Your task to perform on an android device: Go to Wikipedia Image 0: 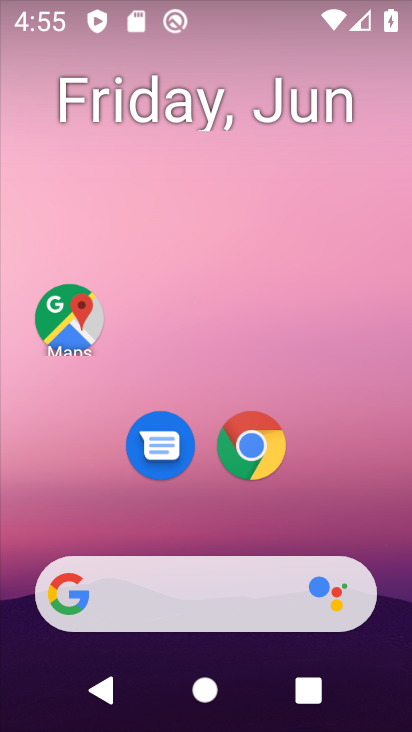
Step 0: drag from (401, 595) to (307, 44)
Your task to perform on an android device: Go to Wikipedia Image 1: 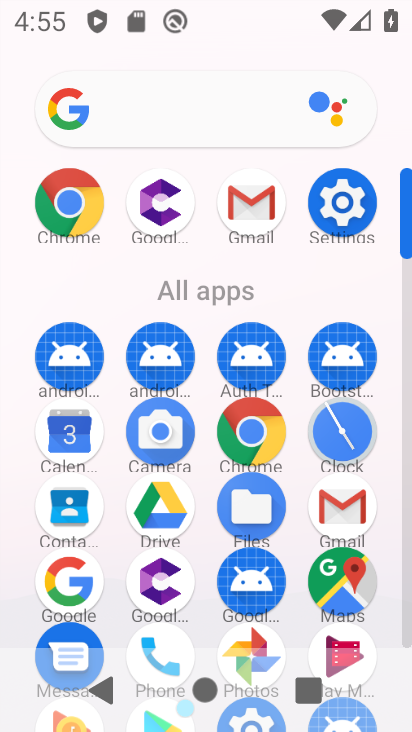
Step 1: drag from (0, 637) to (13, 244)
Your task to perform on an android device: Go to Wikipedia Image 2: 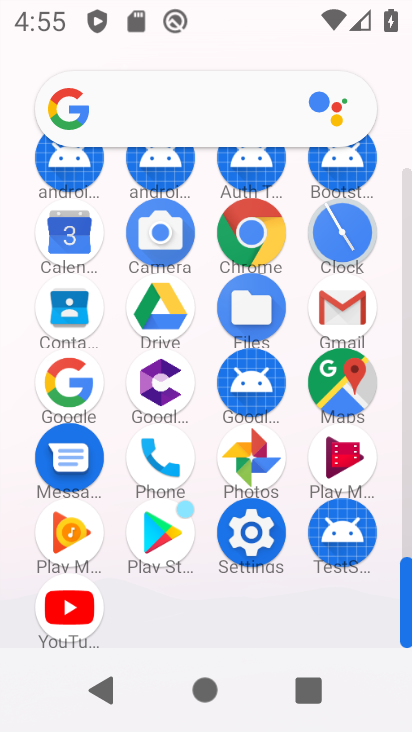
Step 2: click (246, 228)
Your task to perform on an android device: Go to Wikipedia Image 3: 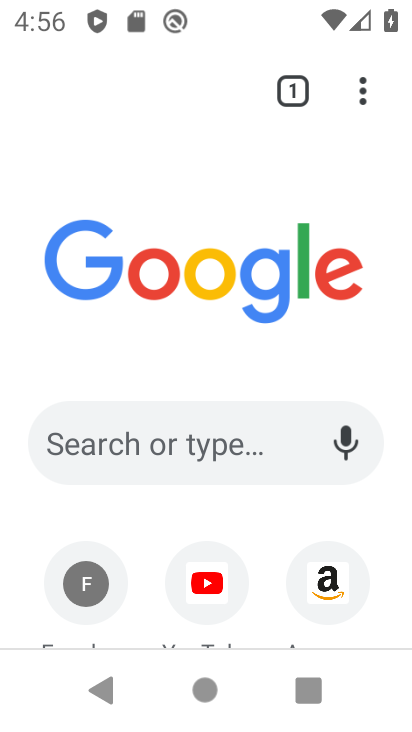
Step 3: click (261, 442)
Your task to perform on an android device: Go to Wikipedia Image 4: 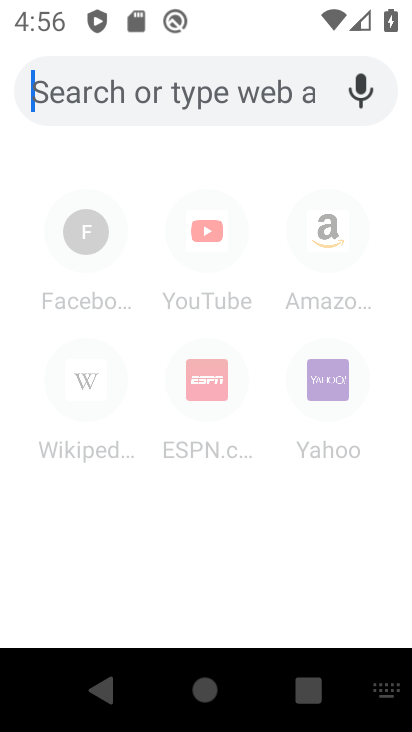
Step 4: click (88, 382)
Your task to perform on an android device: Go to Wikipedia Image 5: 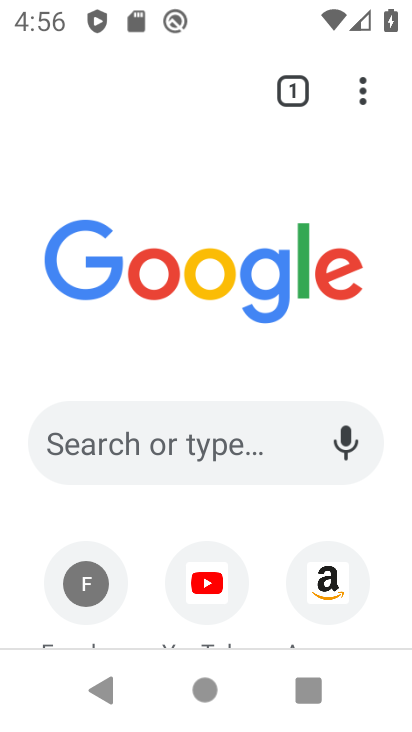
Step 5: drag from (31, 615) to (13, 358)
Your task to perform on an android device: Go to Wikipedia Image 6: 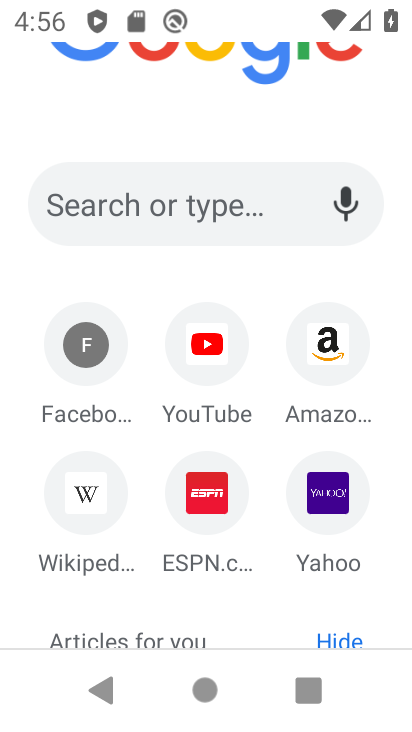
Step 6: click (85, 477)
Your task to perform on an android device: Go to Wikipedia Image 7: 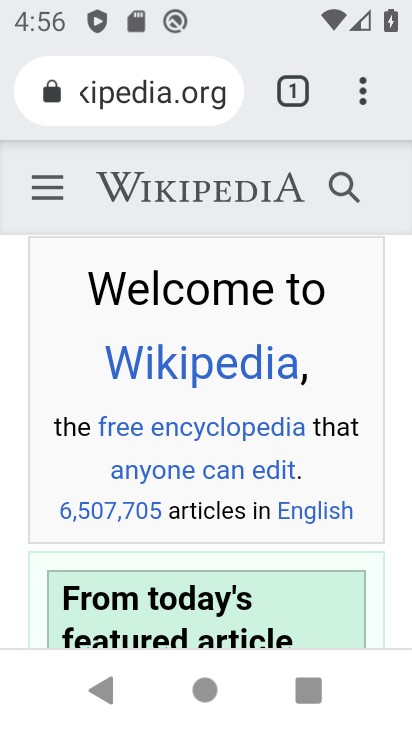
Step 7: task complete